Your task to perform on an android device: clear history in the chrome app Image 0: 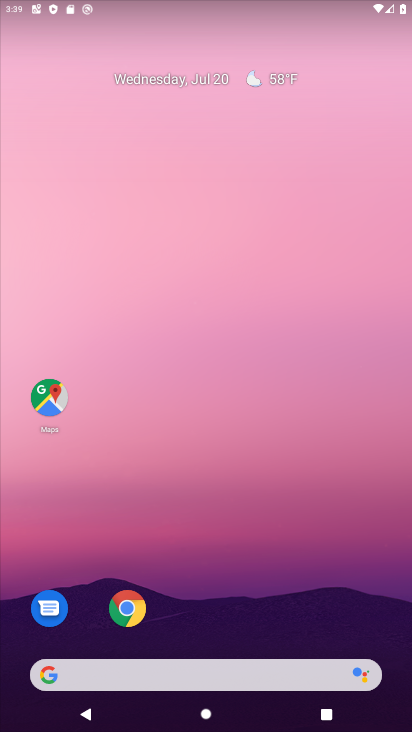
Step 0: click (119, 588)
Your task to perform on an android device: clear history in the chrome app Image 1: 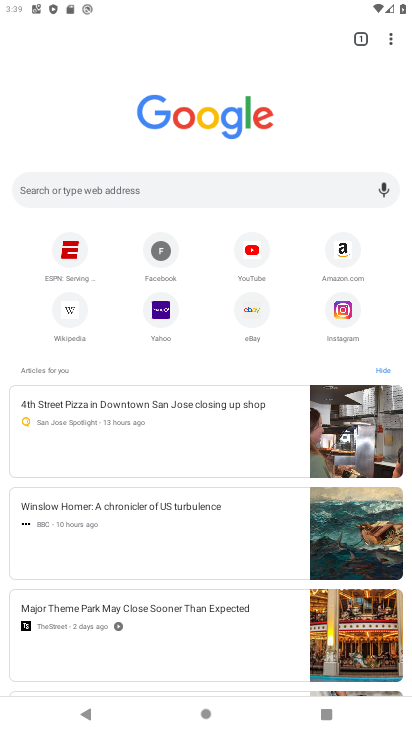
Step 1: click (395, 34)
Your task to perform on an android device: clear history in the chrome app Image 2: 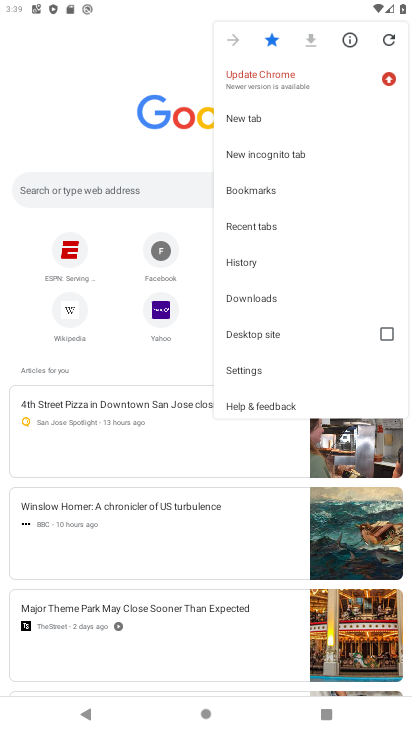
Step 2: click (245, 258)
Your task to perform on an android device: clear history in the chrome app Image 3: 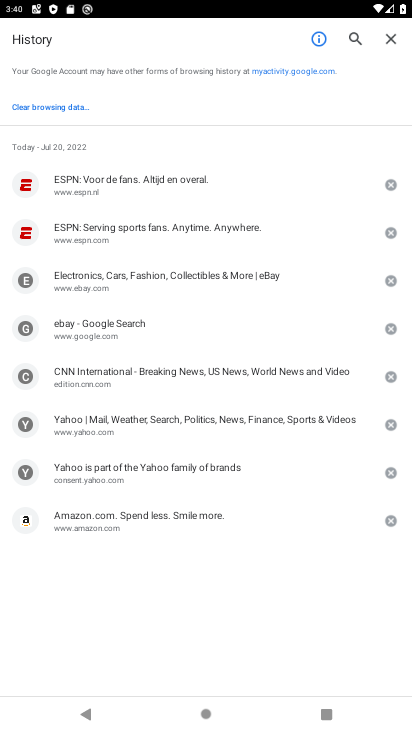
Step 3: click (78, 101)
Your task to perform on an android device: clear history in the chrome app Image 4: 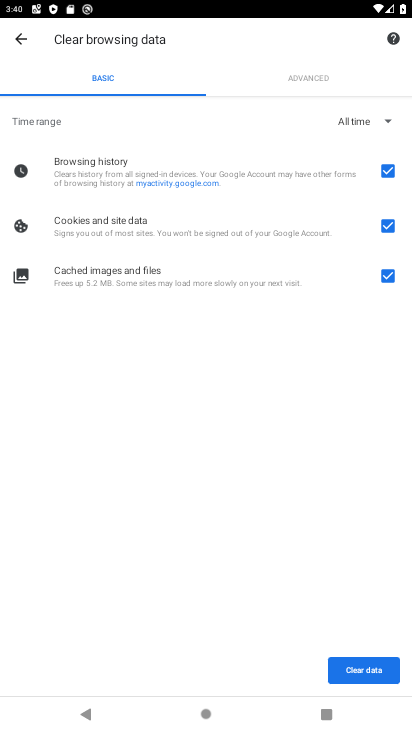
Step 4: click (344, 671)
Your task to perform on an android device: clear history in the chrome app Image 5: 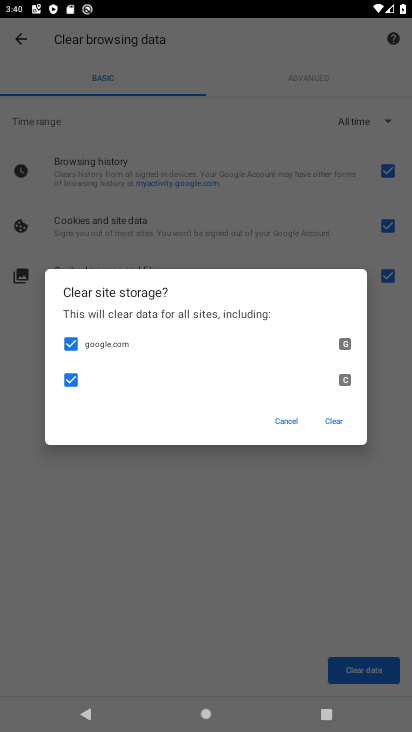
Step 5: task complete